Your task to perform on an android device: Open maps Image 0: 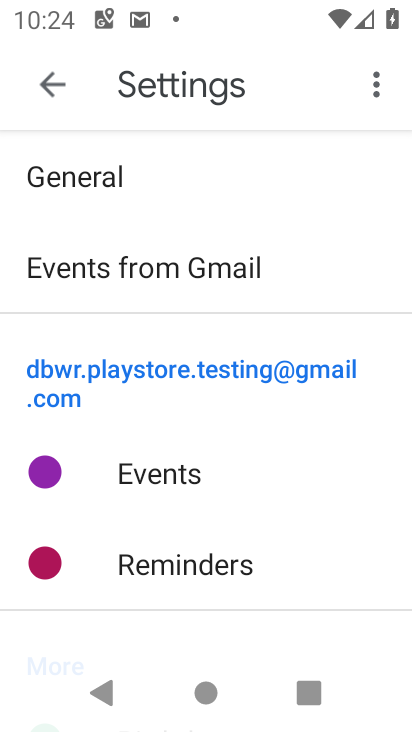
Step 0: press home button
Your task to perform on an android device: Open maps Image 1: 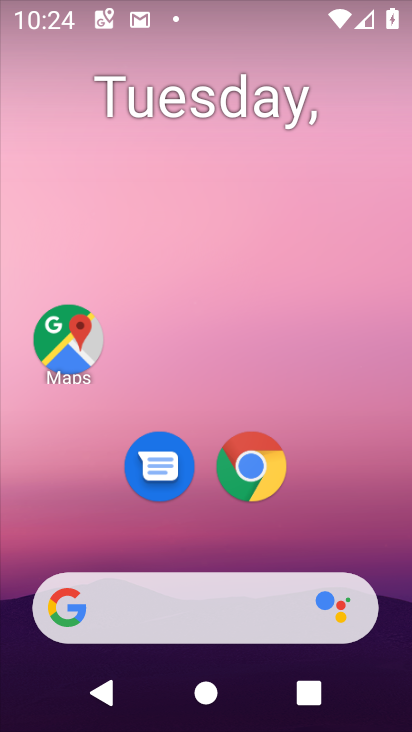
Step 1: drag from (247, 649) to (268, 188)
Your task to perform on an android device: Open maps Image 2: 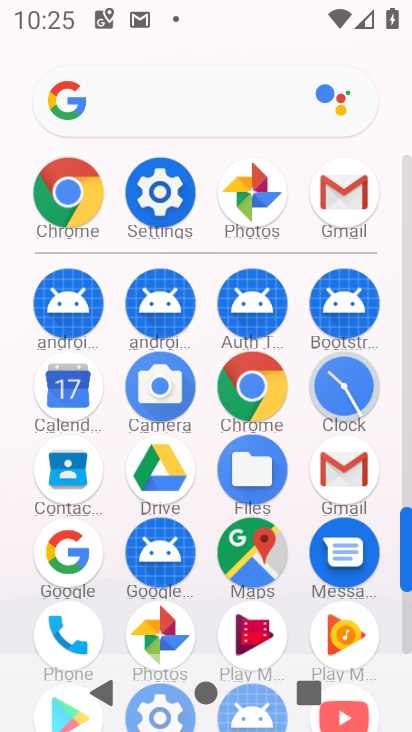
Step 2: click (266, 559)
Your task to perform on an android device: Open maps Image 3: 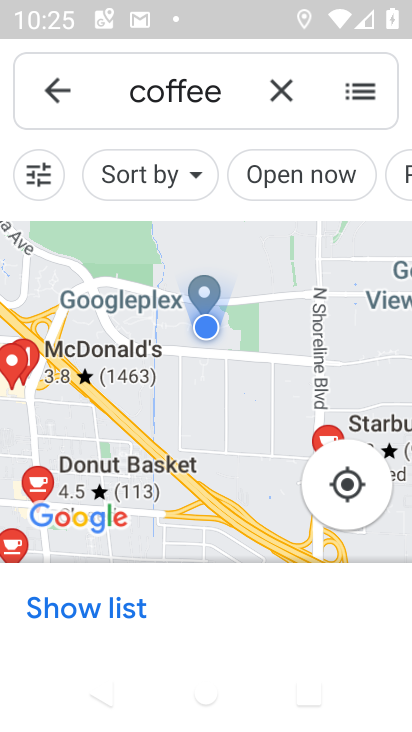
Step 3: task complete